Your task to perform on an android device: turn smart compose on in the gmail app Image 0: 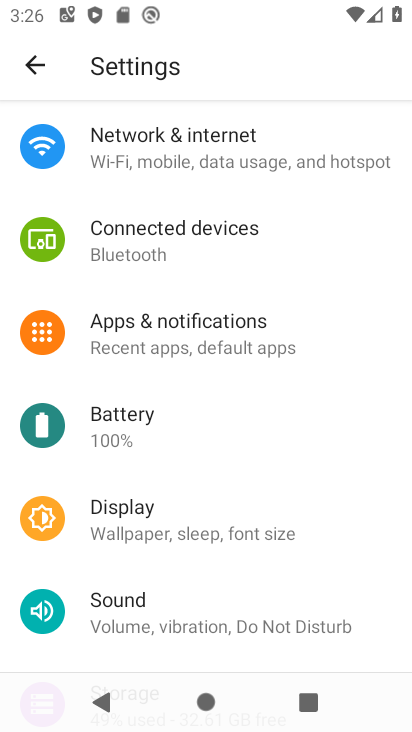
Step 0: press home button
Your task to perform on an android device: turn smart compose on in the gmail app Image 1: 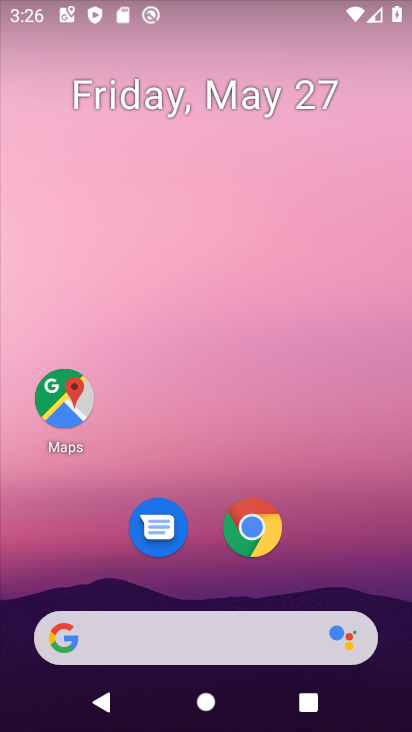
Step 1: drag from (346, 558) to (328, 93)
Your task to perform on an android device: turn smart compose on in the gmail app Image 2: 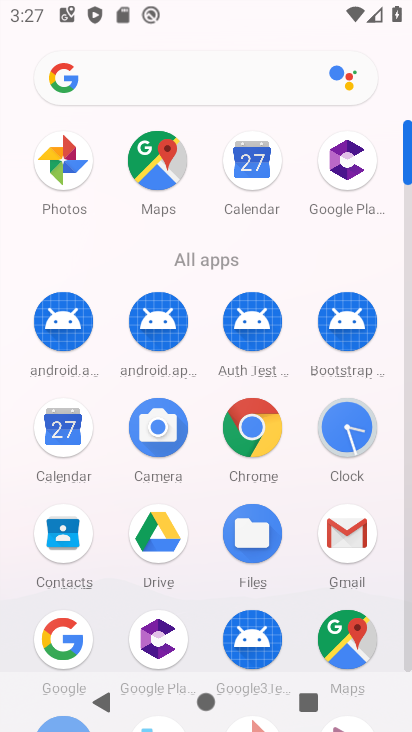
Step 2: click (328, 526)
Your task to perform on an android device: turn smart compose on in the gmail app Image 3: 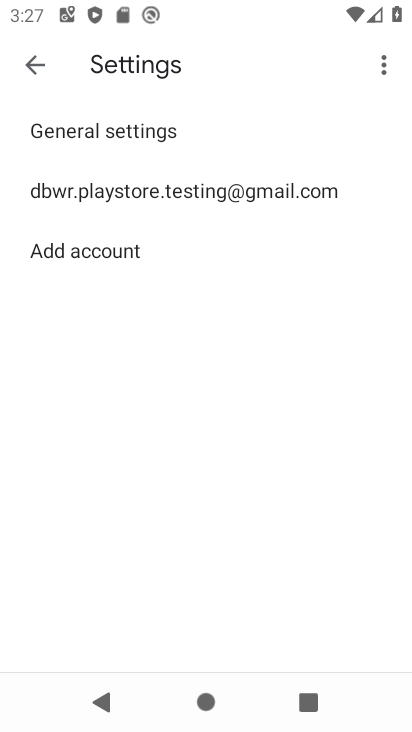
Step 3: click (242, 183)
Your task to perform on an android device: turn smart compose on in the gmail app Image 4: 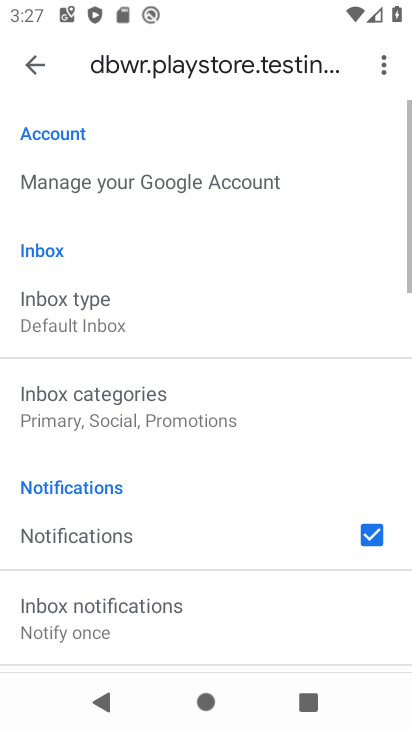
Step 4: task complete